Your task to perform on an android device: Go to Yahoo.com Image 0: 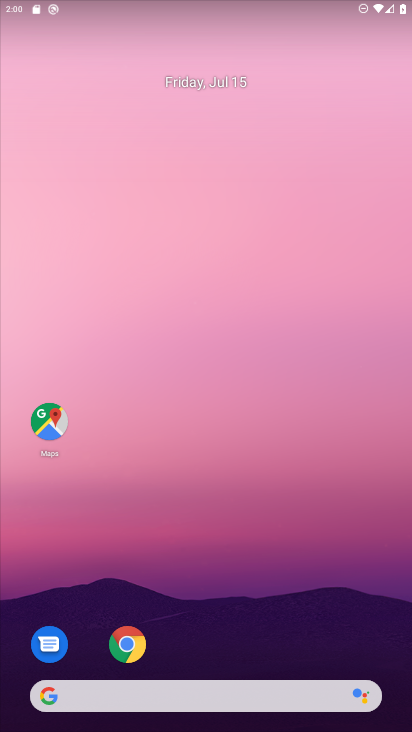
Step 0: click (119, 644)
Your task to perform on an android device: Go to Yahoo.com Image 1: 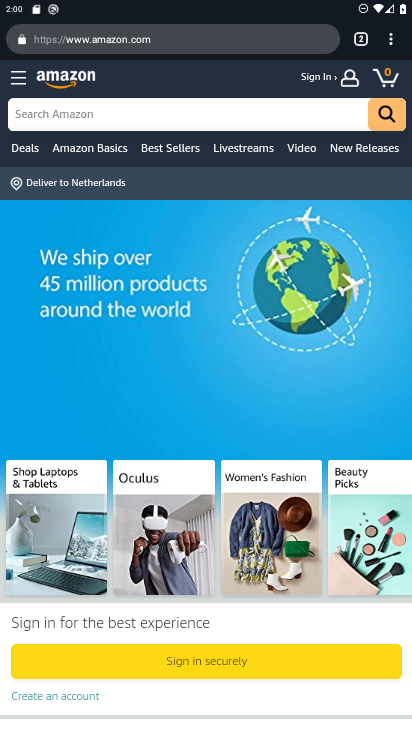
Step 1: click (356, 37)
Your task to perform on an android device: Go to Yahoo.com Image 2: 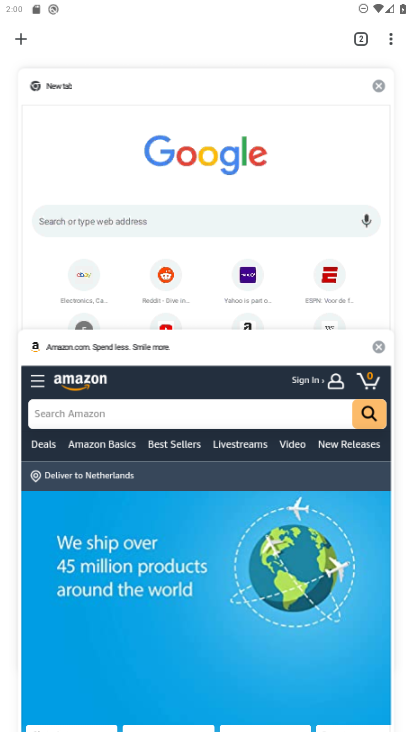
Step 2: click (121, 253)
Your task to perform on an android device: Go to Yahoo.com Image 3: 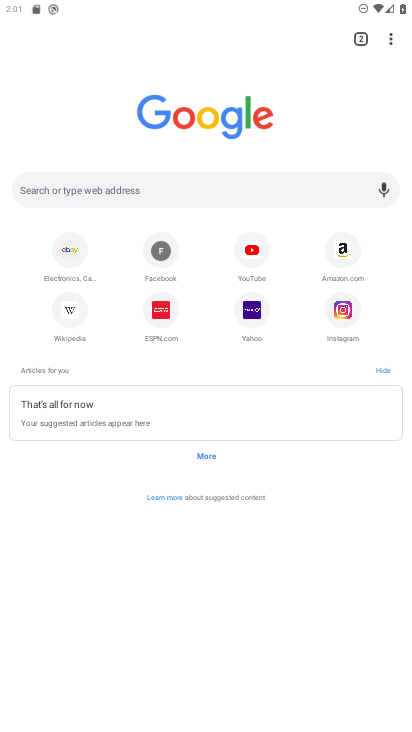
Step 3: click (255, 321)
Your task to perform on an android device: Go to Yahoo.com Image 4: 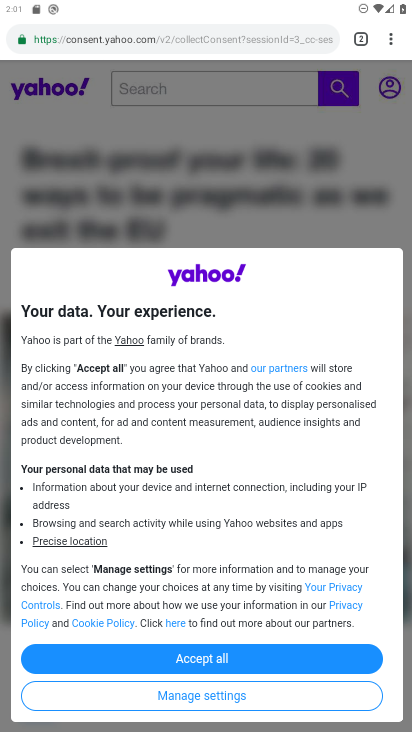
Step 4: task complete